Your task to perform on an android device: open sync settings in chrome Image 0: 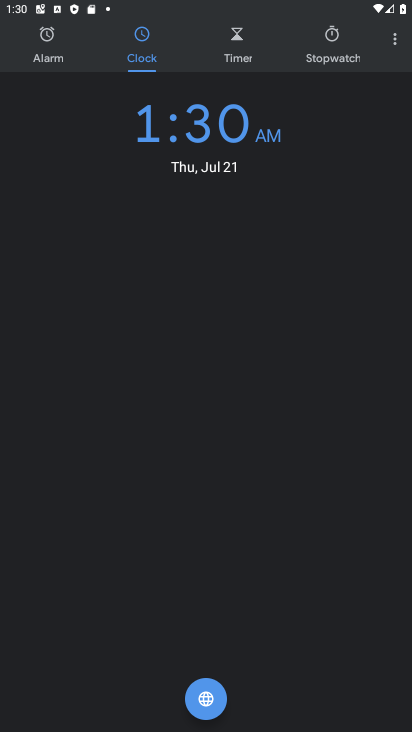
Step 0: press home button
Your task to perform on an android device: open sync settings in chrome Image 1: 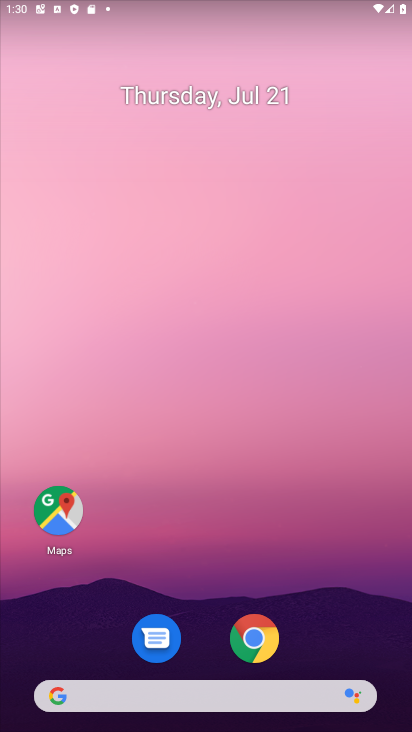
Step 1: click (257, 637)
Your task to perform on an android device: open sync settings in chrome Image 2: 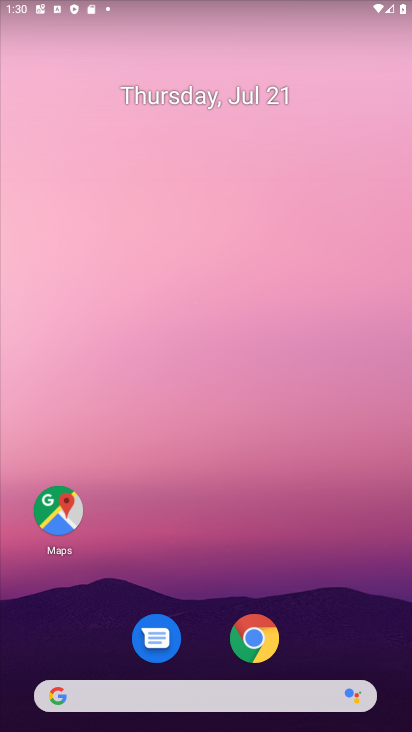
Step 2: click (257, 637)
Your task to perform on an android device: open sync settings in chrome Image 3: 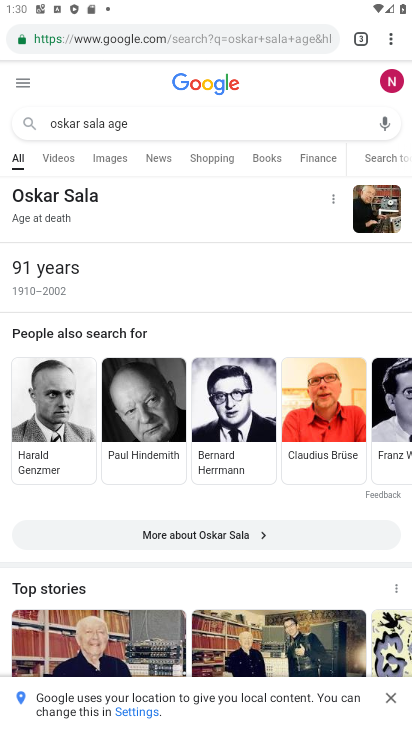
Step 3: click (387, 36)
Your task to perform on an android device: open sync settings in chrome Image 4: 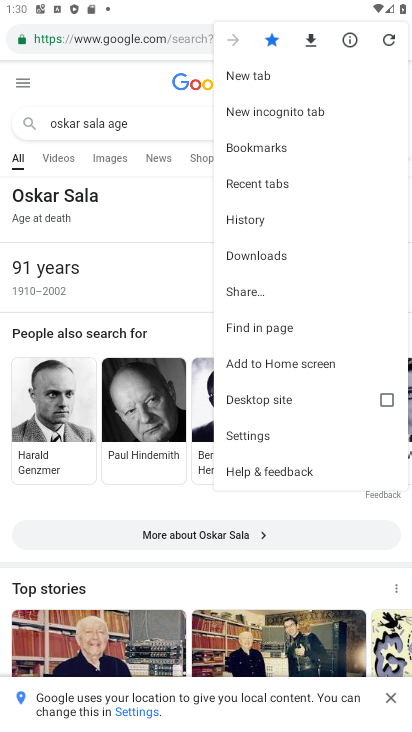
Step 4: click (273, 434)
Your task to perform on an android device: open sync settings in chrome Image 5: 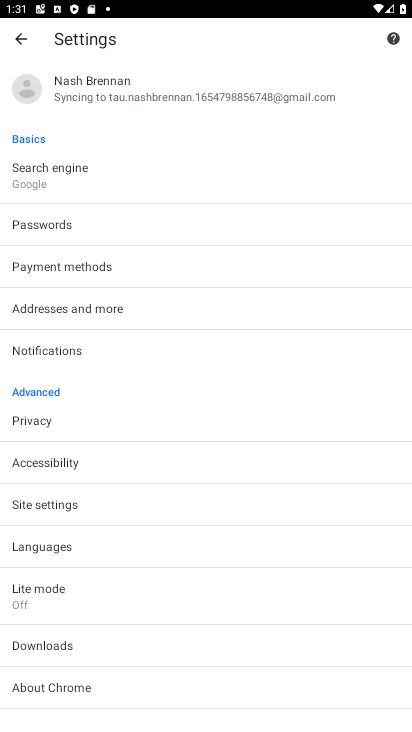
Step 5: click (106, 89)
Your task to perform on an android device: open sync settings in chrome Image 6: 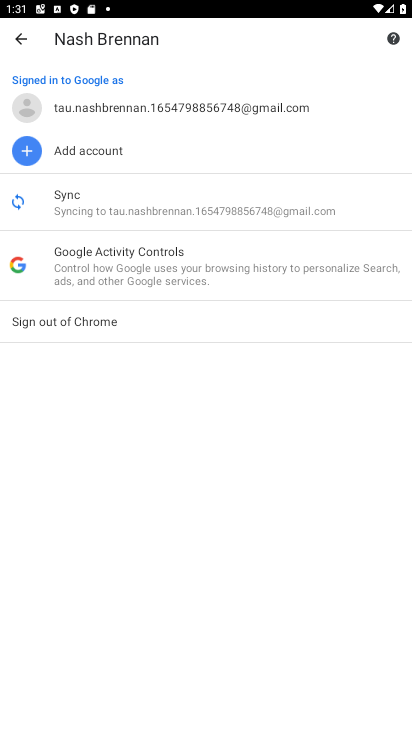
Step 6: task complete